Your task to perform on an android device: all mails in gmail Image 0: 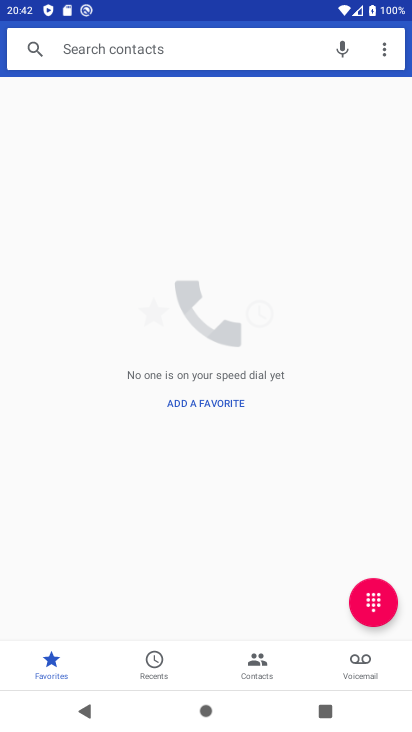
Step 0: press home button
Your task to perform on an android device: all mails in gmail Image 1: 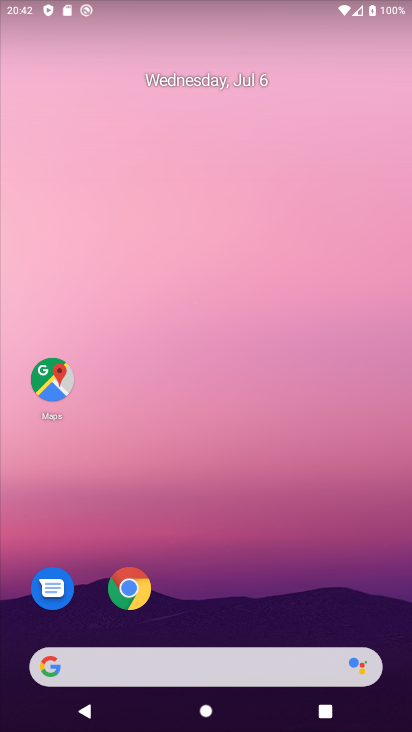
Step 1: drag from (249, 547) to (180, 116)
Your task to perform on an android device: all mails in gmail Image 2: 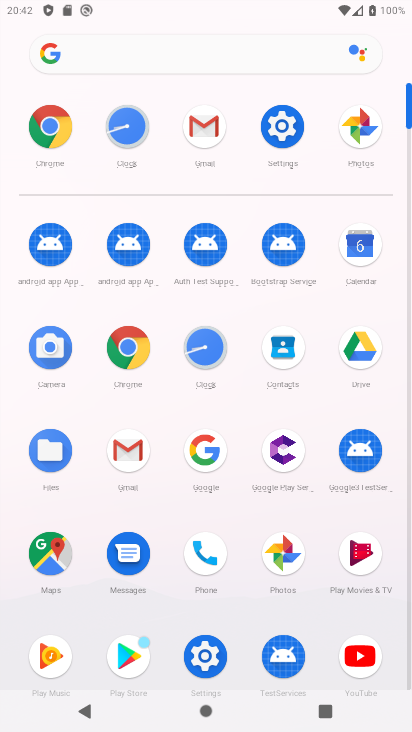
Step 2: click (204, 127)
Your task to perform on an android device: all mails in gmail Image 3: 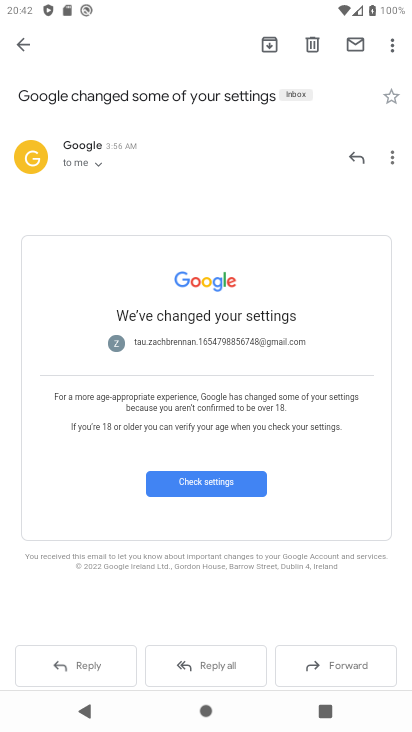
Step 3: click (24, 37)
Your task to perform on an android device: all mails in gmail Image 4: 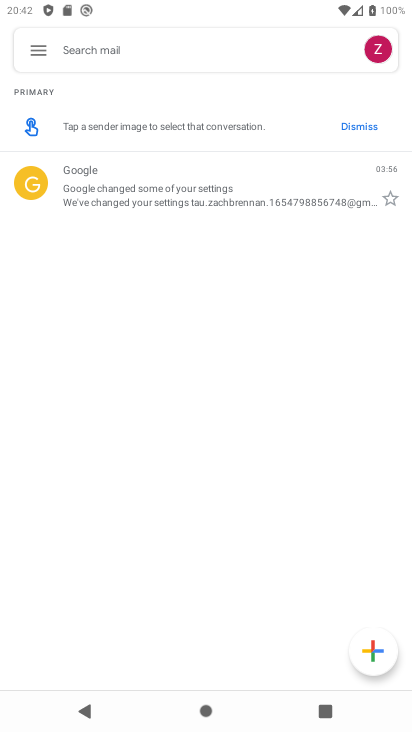
Step 4: click (34, 43)
Your task to perform on an android device: all mails in gmail Image 5: 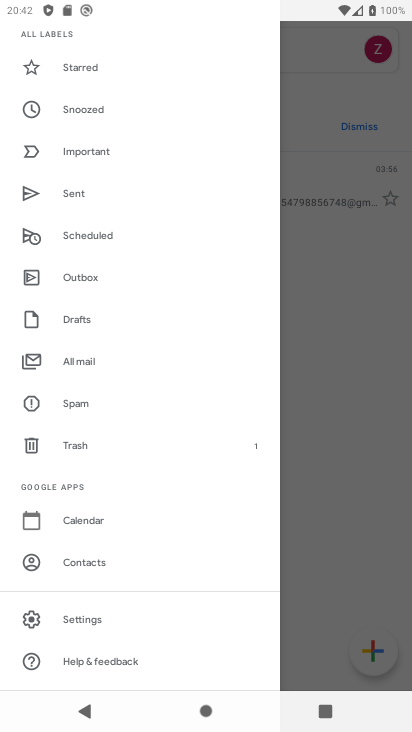
Step 5: click (74, 358)
Your task to perform on an android device: all mails in gmail Image 6: 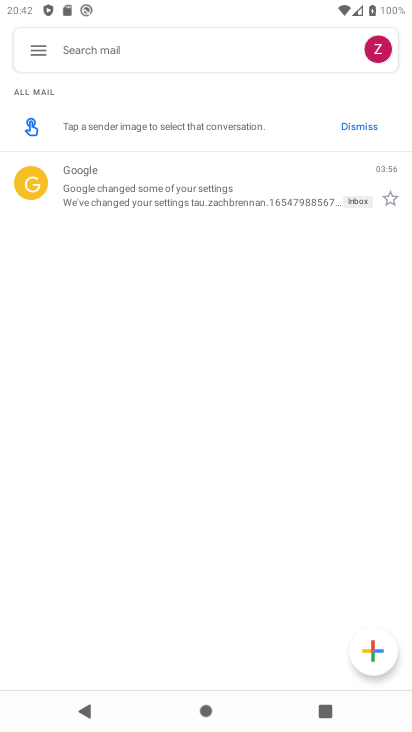
Step 6: task complete